Your task to perform on an android device: Go to Google Image 0: 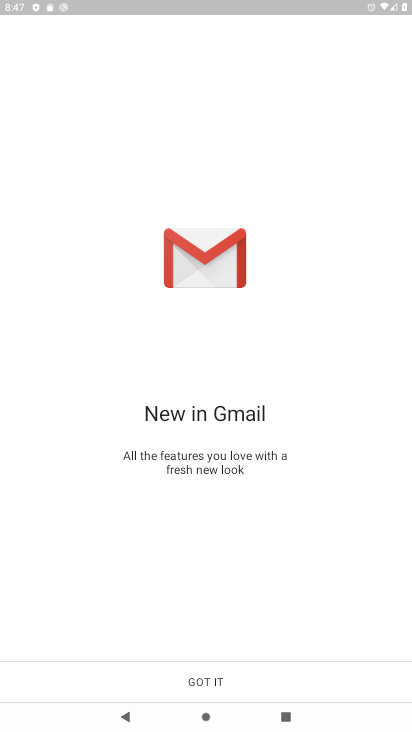
Step 0: press home button
Your task to perform on an android device: Go to Google Image 1: 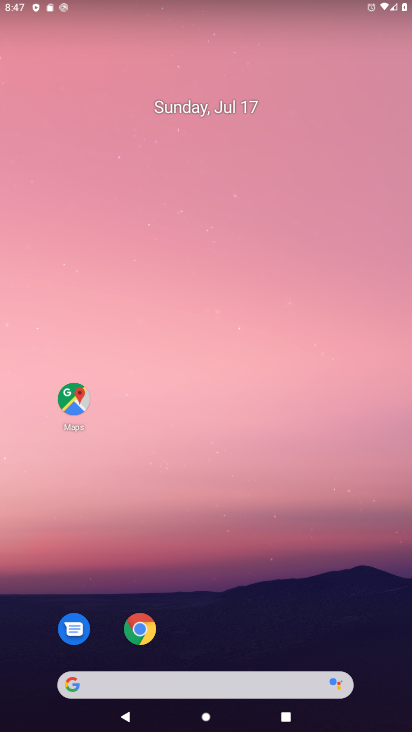
Step 1: drag from (250, 603) to (343, 26)
Your task to perform on an android device: Go to Google Image 2: 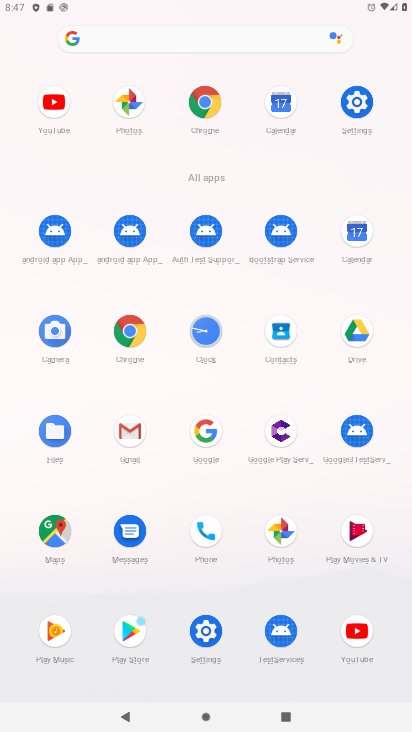
Step 2: click (199, 432)
Your task to perform on an android device: Go to Google Image 3: 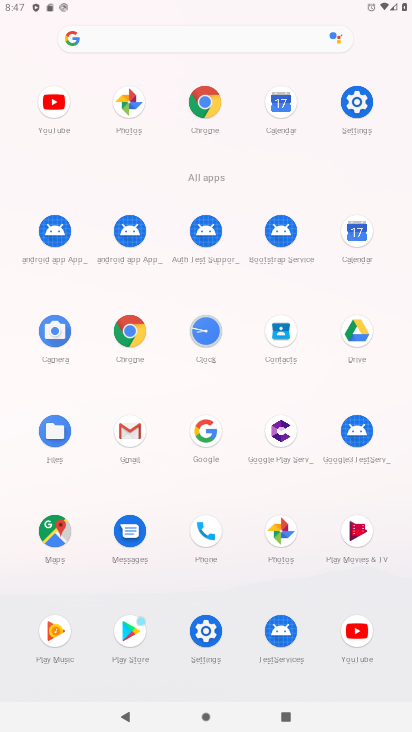
Step 3: click (199, 432)
Your task to perform on an android device: Go to Google Image 4: 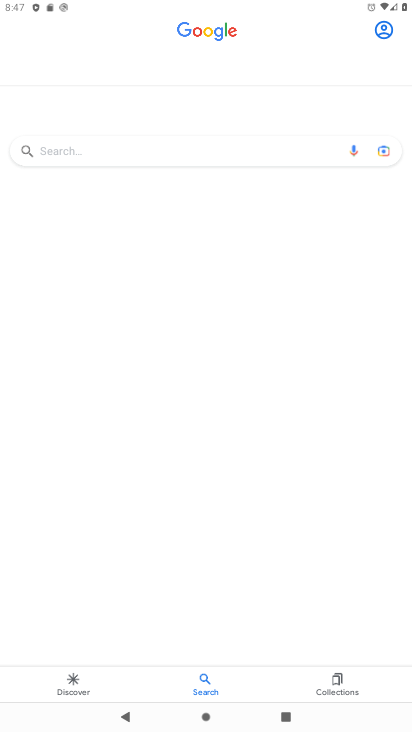
Step 4: task complete